Your task to perform on an android device: set an alarm Image 0: 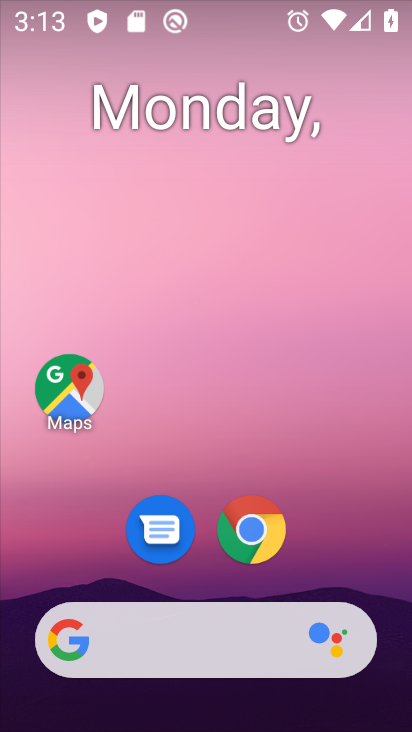
Step 0: drag from (212, 533) to (346, 7)
Your task to perform on an android device: set an alarm Image 1: 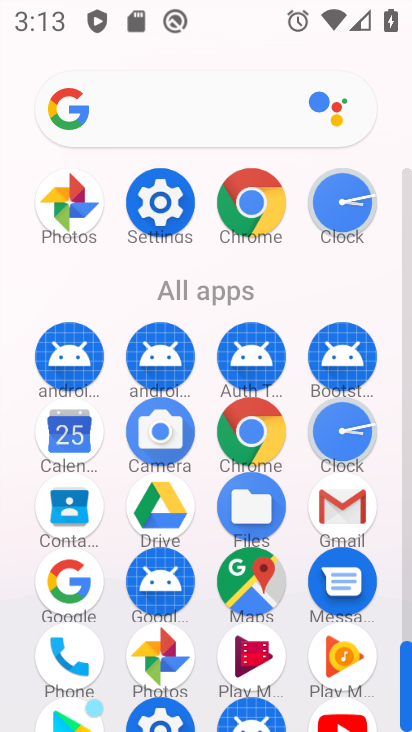
Step 1: click (340, 429)
Your task to perform on an android device: set an alarm Image 2: 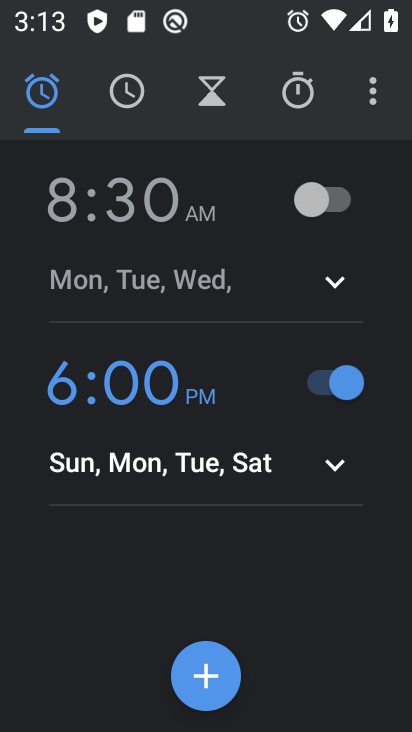
Step 2: click (172, 222)
Your task to perform on an android device: set an alarm Image 3: 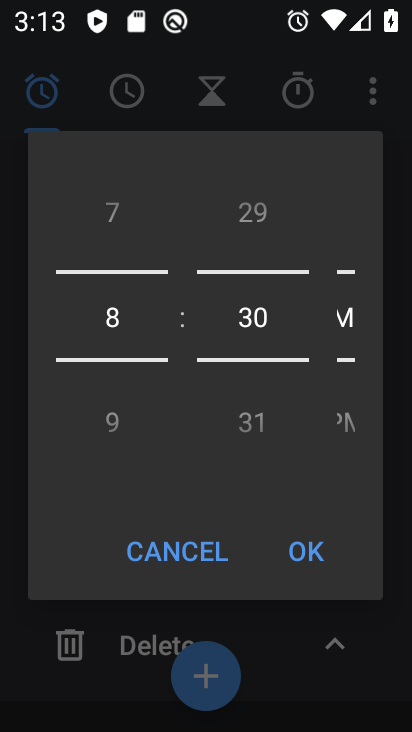
Step 3: drag from (130, 355) to (90, 557)
Your task to perform on an android device: set an alarm Image 4: 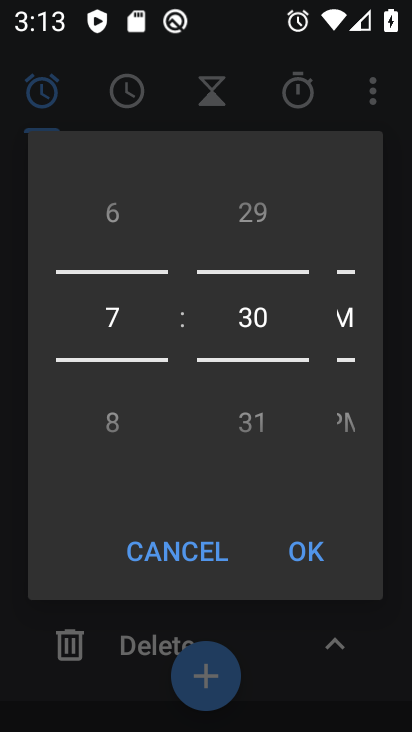
Step 4: click (301, 551)
Your task to perform on an android device: set an alarm Image 5: 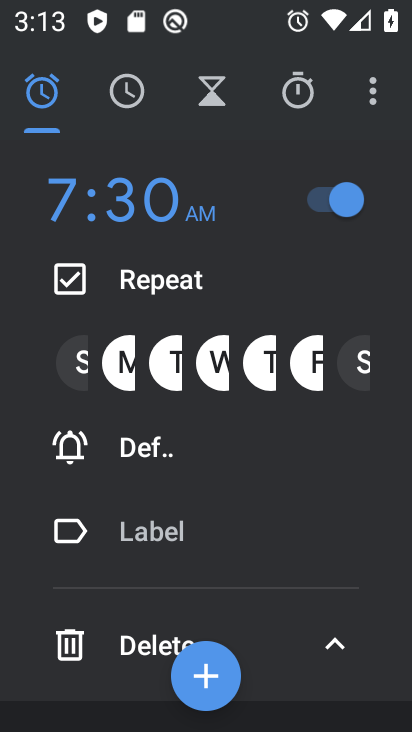
Step 5: click (79, 367)
Your task to perform on an android device: set an alarm Image 6: 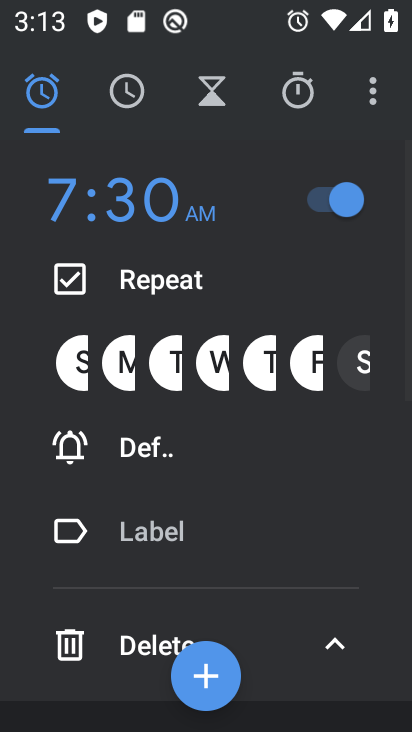
Step 6: click (324, 641)
Your task to perform on an android device: set an alarm Image 7: 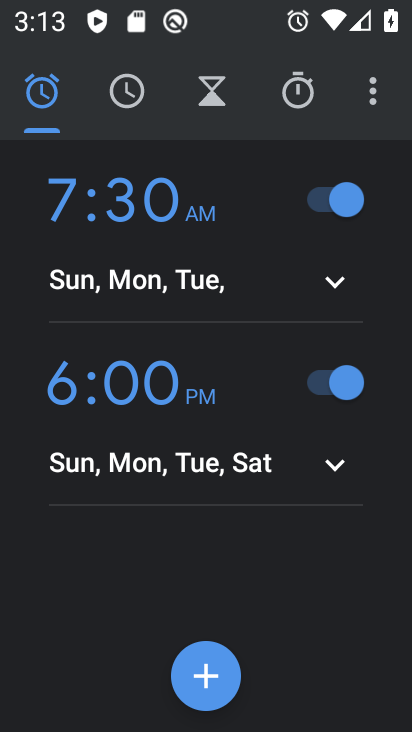
Step 7: task complete